Your task to perform on an android device: Open the Play Movies app and select the watchlist tab. Image 0: 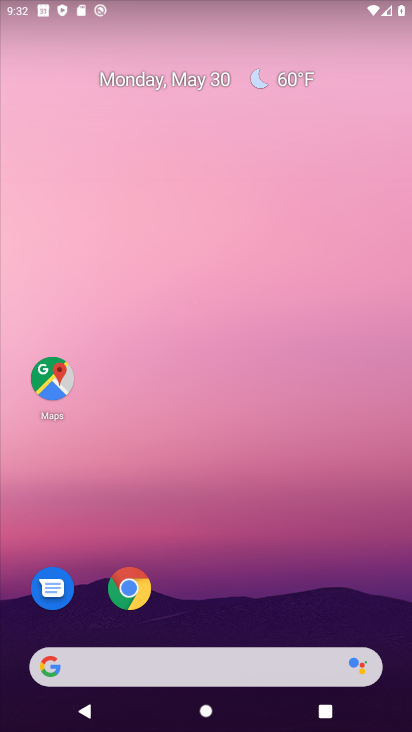
Step 0: drag from (208, 625) to (197, 14)
Your task to perform on an android device: Open the Play Movies app and select the watchlist tab. Image 1: 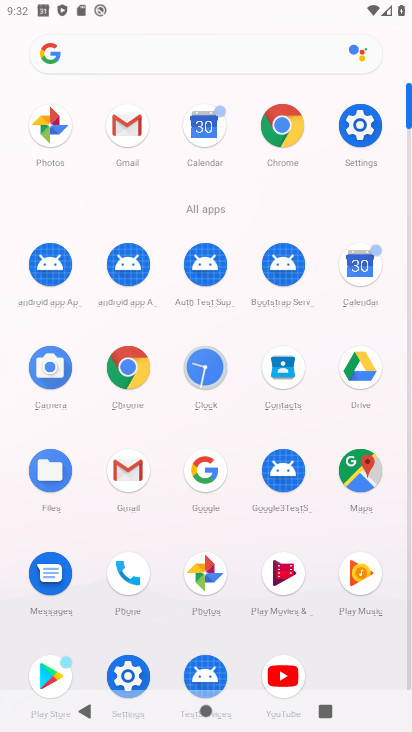
Step 1: click (291, 596)
Your task to perform on an android device: Open the Play Movies app and select the watchlist tab. Image 2: 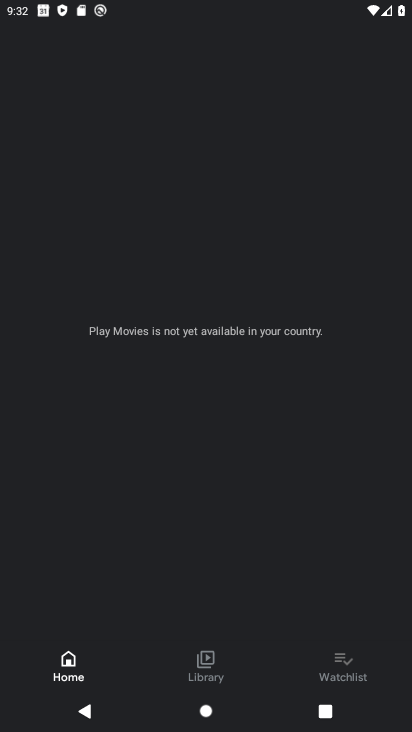
Step 2: click (337, 664)
Your task to perform on an android device: Open the Play Movies app and select the watchlist tab. Image 3: 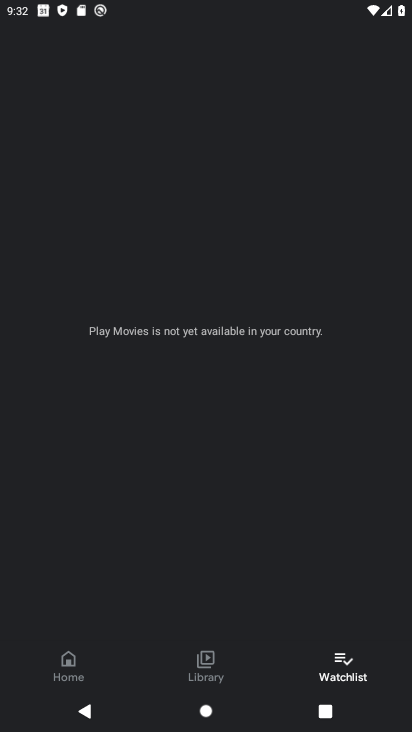
Step 3: task complete